Your task to perform on an android device: Open Wikipedia Image 0: 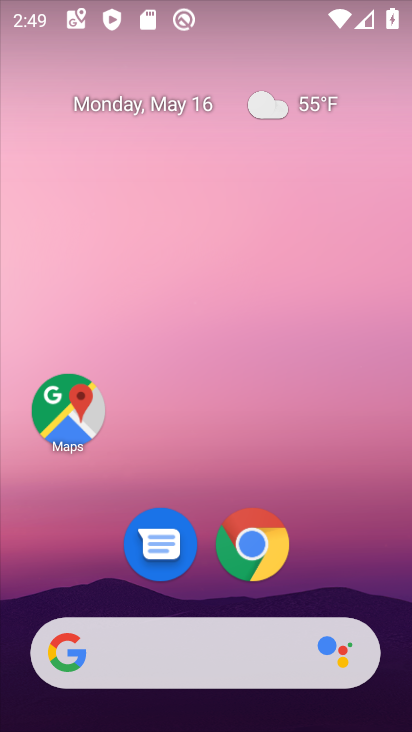
Step 0: drag from (311, 457) to (25, 362)
Your task to perform on an android device: Open Wikipedia Image 1: 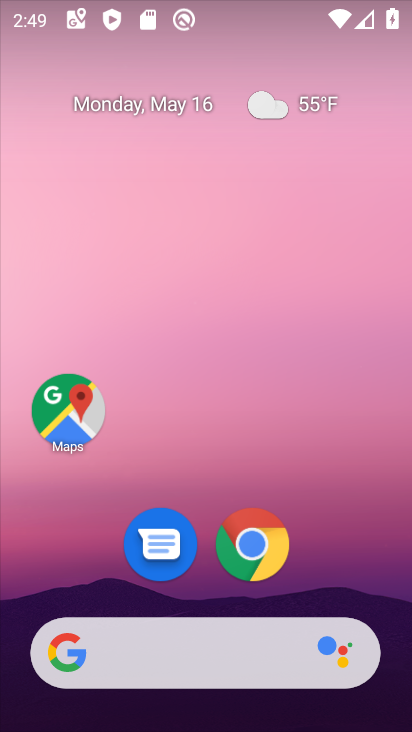
Step 1: click (279, 559)
Your task to perform on an android device: Open Wikipedia Image 2: 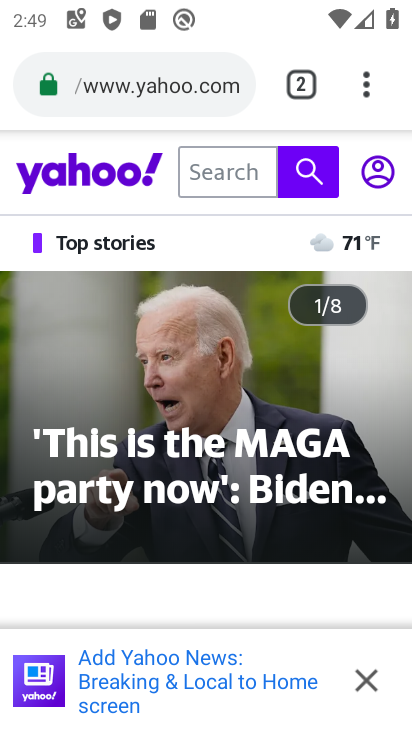
Step 2: click (176, 96)
Your task to perform on an android device: Open Wikipedia Image 3: 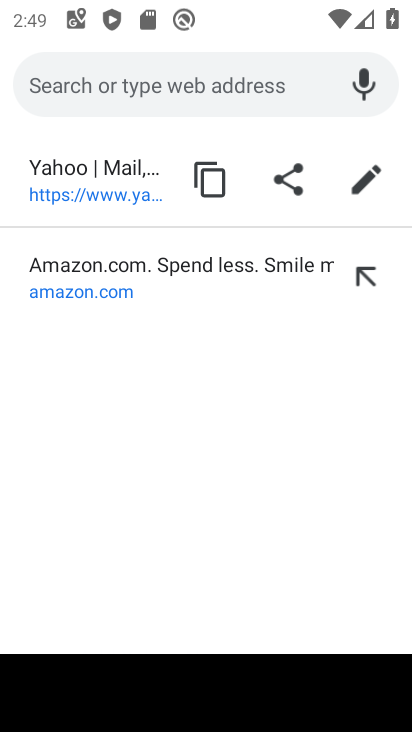
Step 3: type "wikipedia"
Your task to perform on an android device: Open Wikipedia Image 4: 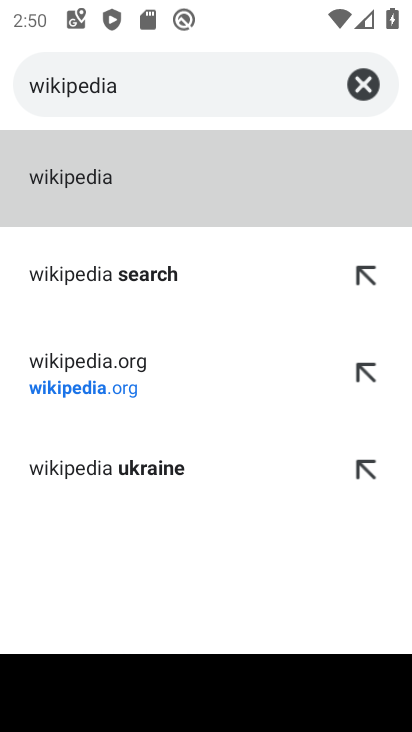
Step 4: click (66, 193)
Your task to perform on an android device: Open Wikipedia Image 5: 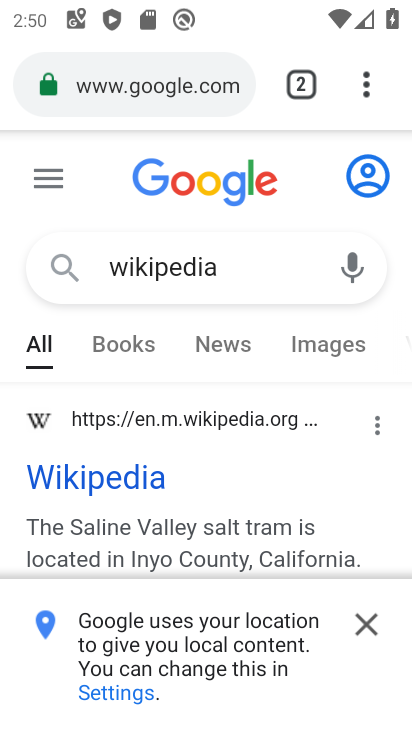
Step 5: click (117, 482)
Your task to perform on an android device: Open Wikipedia Image 6: 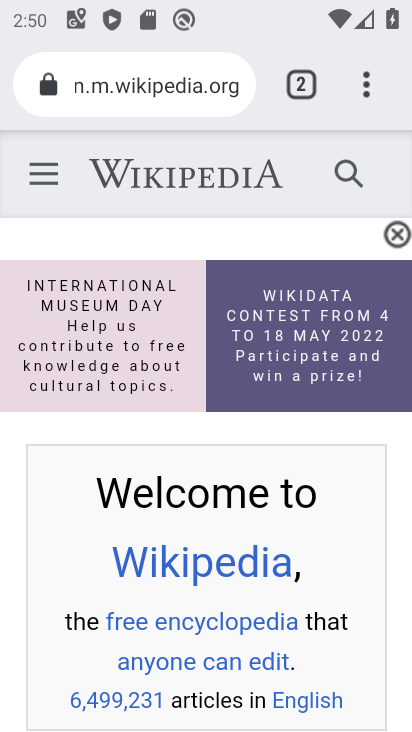
Step 6: task complete